Your task to perform on an android device: Open the web browser Image 0: 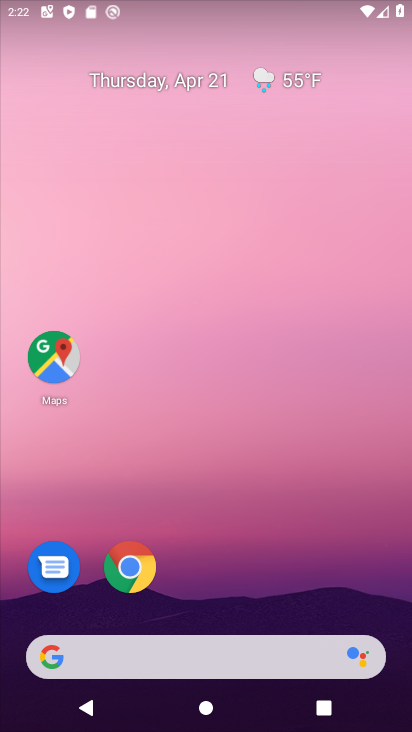
Step 0: drag from (245, 593) to (217, 170)
Your task to perform on an android device: Open the web browser Image 1: 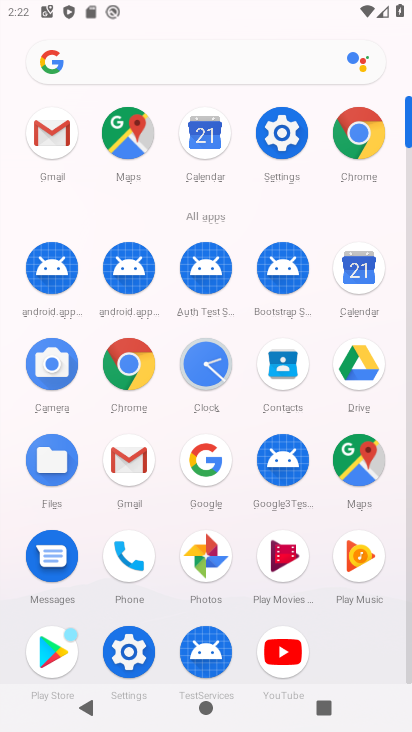
Step 1: click (129, 366)
Your task to perform on an android device: Open the web browser Image 2: 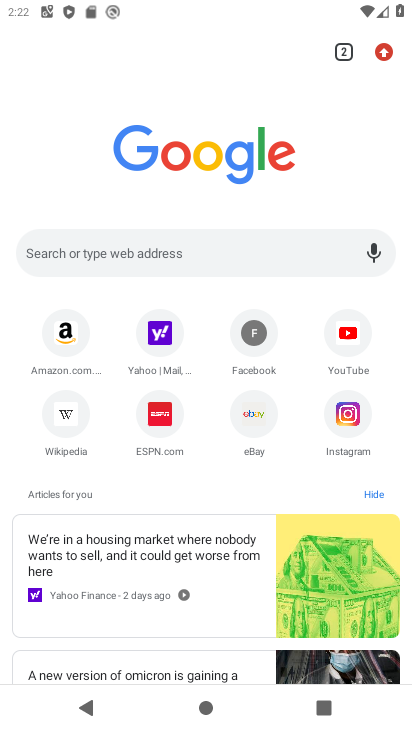
Step 2: click (381, 53)
Your task to perform on an android device: Open the web browser Image 3: 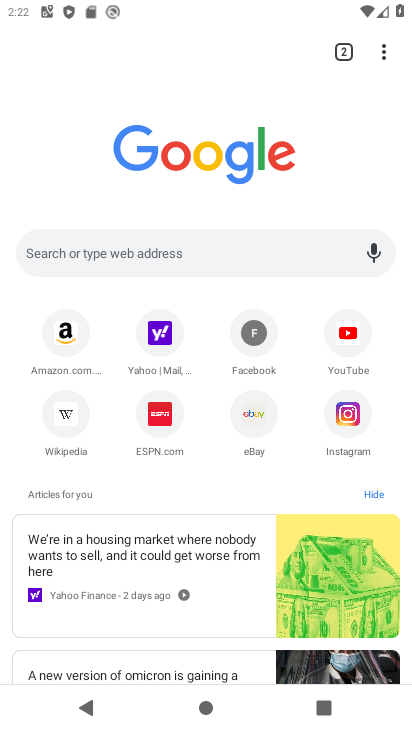
Step 3: click (170, 259)
Your task to perform on an android device: Open the web browser Image 4: 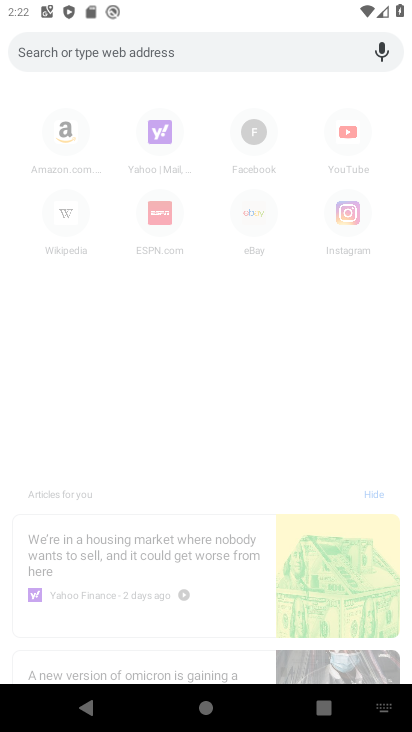
Step 4: type "web browser"
Your task to perform on an android device: Open the web browser Image 5: 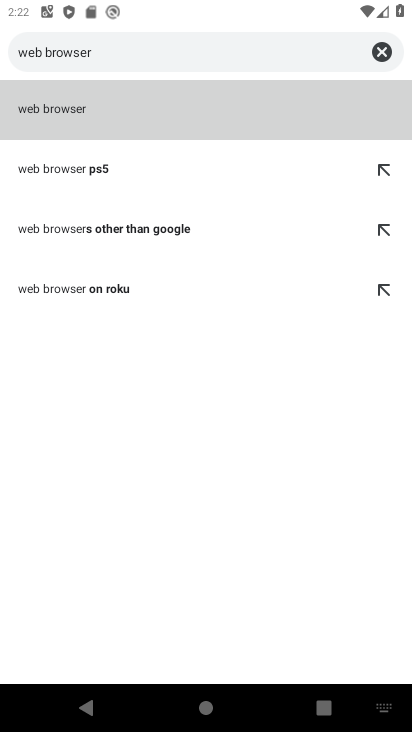
Step 5: click (61, 107)
Your task to perform on an android device: Open the web browser Image 6: 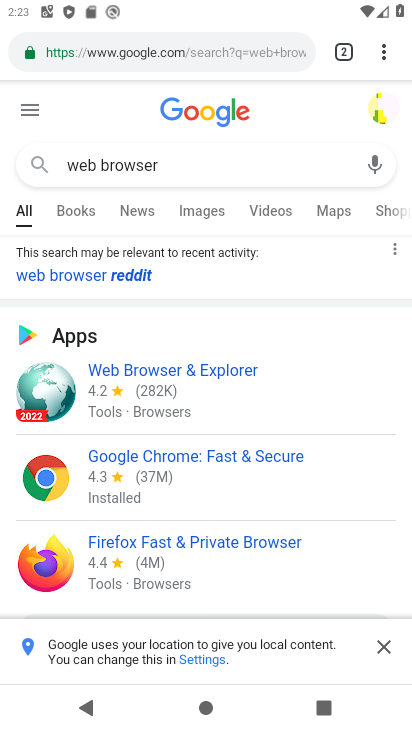
Step 6: task complete